Your task to perform on an android device: turn pop-ups on in chrome Image 0: 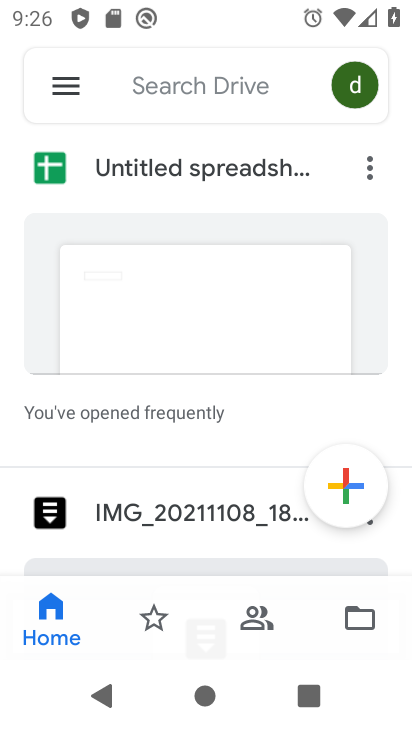
Step 0: press home button
Your task to perform on an android device: turn pop-ups on in chrome Image 1: 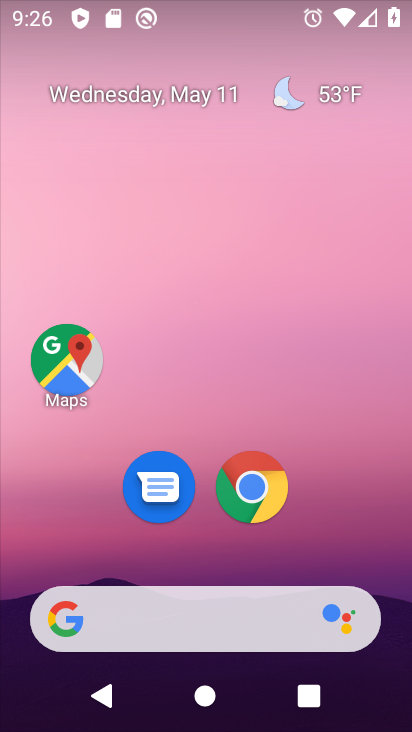
Step 1: click (236, 495)
Your task to perform on an android device: turn pop-ups on in chrome Image 2: 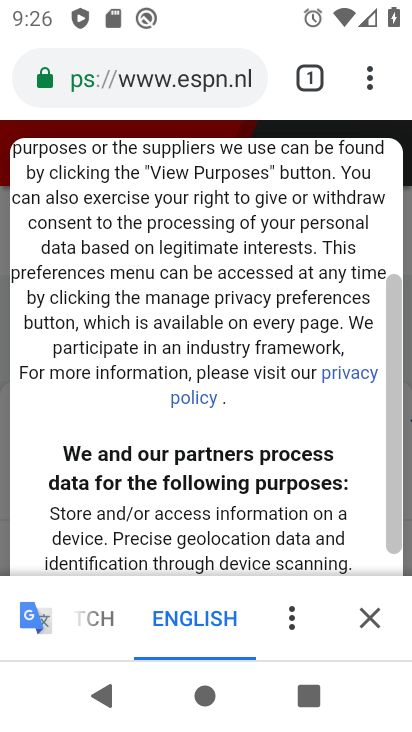
Step 2: drag from (368, 73) to (135, 552)
Your task to perform on an android device: turn pop-ups on in chrome Image 3: 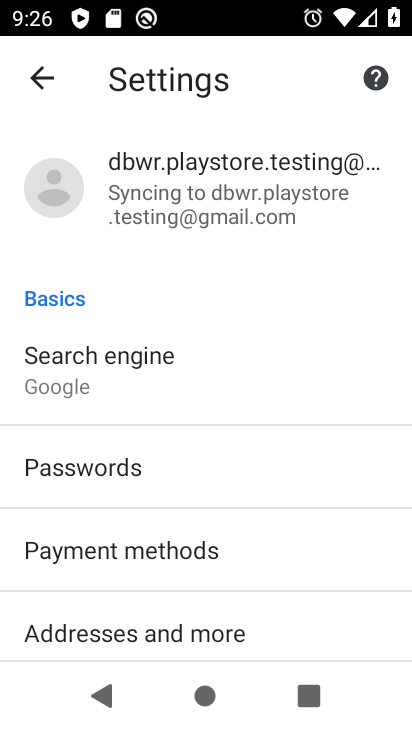
Step 3: drag from (185, 572) to (303, 256)
Your task to perform on an android device: turn pop-ups on in chrome Image 4: 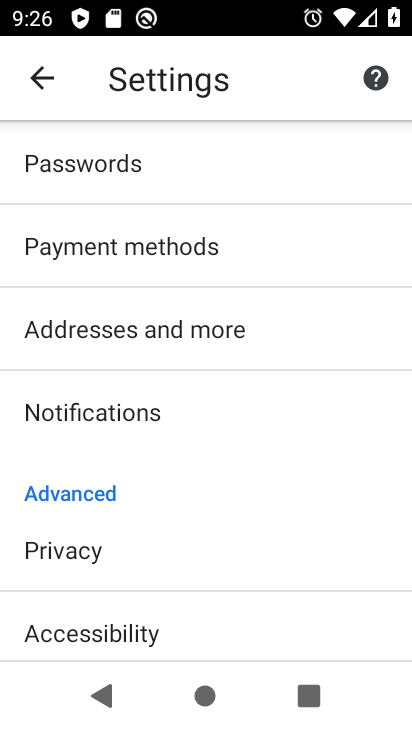
Step 4: drag from (234, 562) to (234, 219)
Your task to perform on an android device: turn pop-ups on in chrome Image 5: 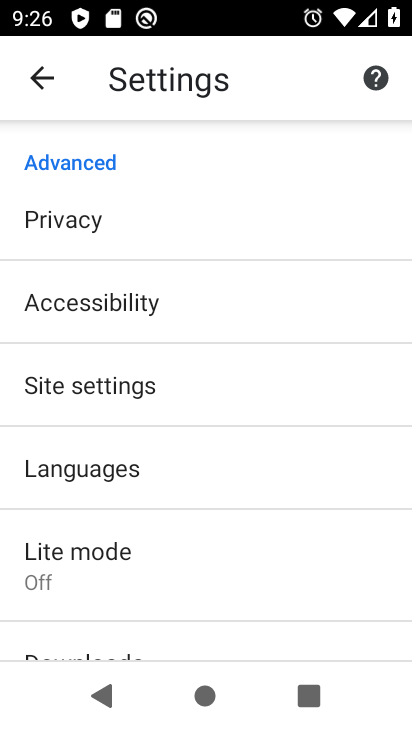
Step 5: click (119, 391)
Your task to perform on an android device: turn pop-ups on in chrome Image 6: 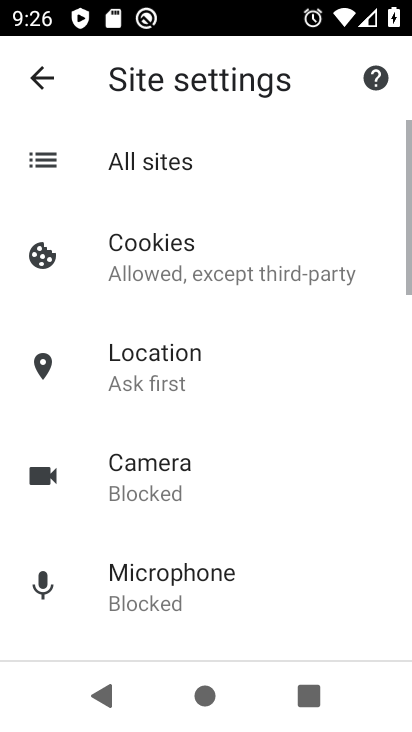
Step 6: drag from (214, 552) to (229, 253)
Your task to perform on an android device: turn pop-ups on in chrome Image 7: 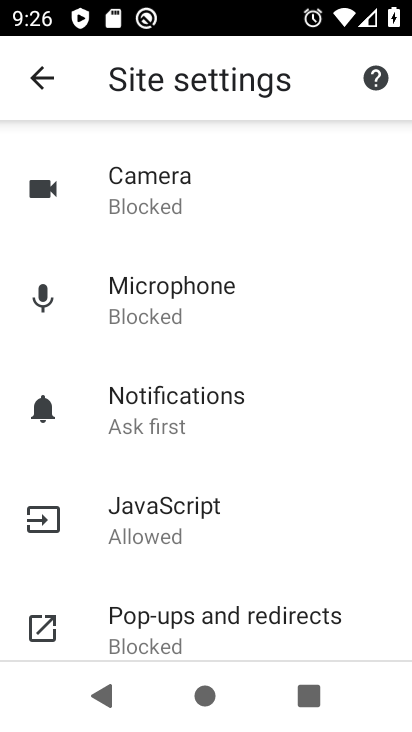
Step 7: click (191, 613)
Your task to perform on an android device: turn pop-ups on in chrome Image 8: 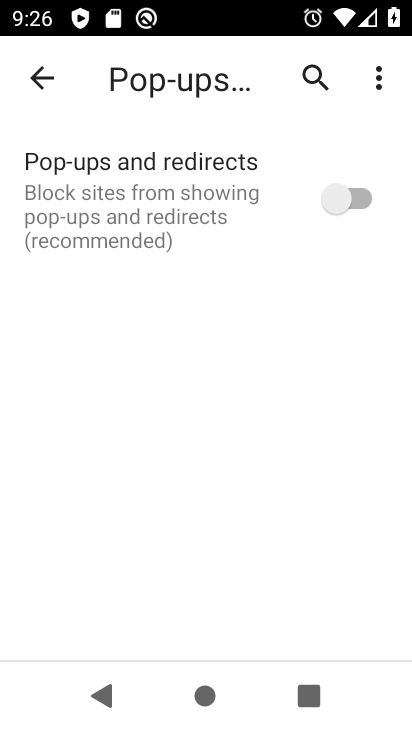
Step 8: click (356, 187)
Your task to perform on an android device: turn pop-ups on in chrome Image 9: 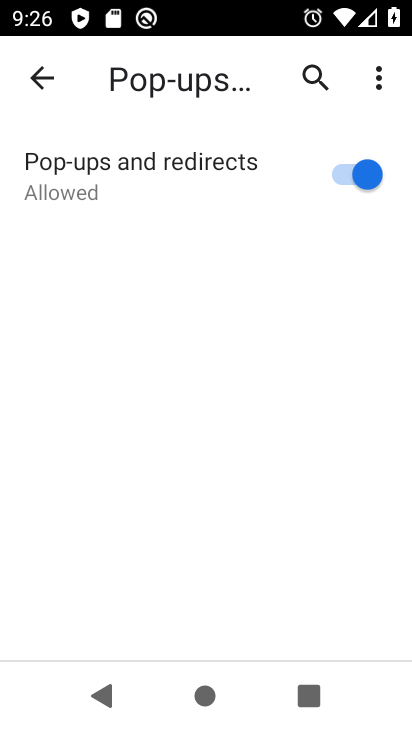
Step 9: task complete